Your task to perform on an android device: turn on the 12-hour format for clock Image 0: 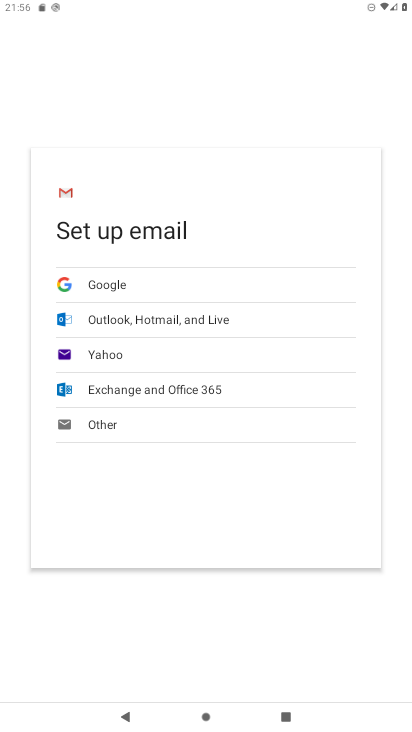
Step 0: press home button
Your task to perform on an android device: turn on the 12-hour format for clock Image 1: 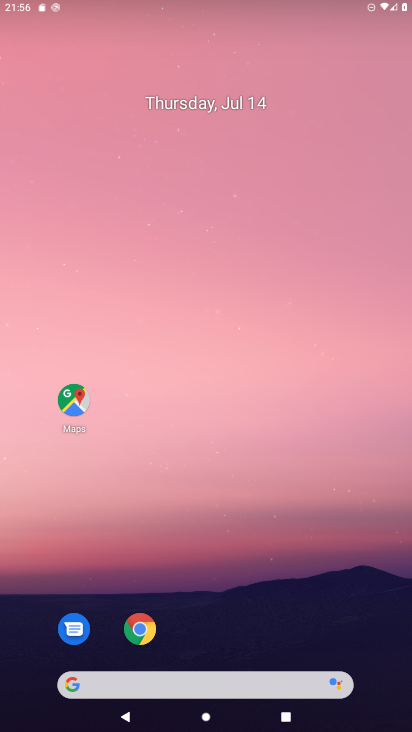
Step 1: drag from (251, 613) to (248, 252)
Your task to perform on an android device: turn on the 12-hour format for clock Image 2: 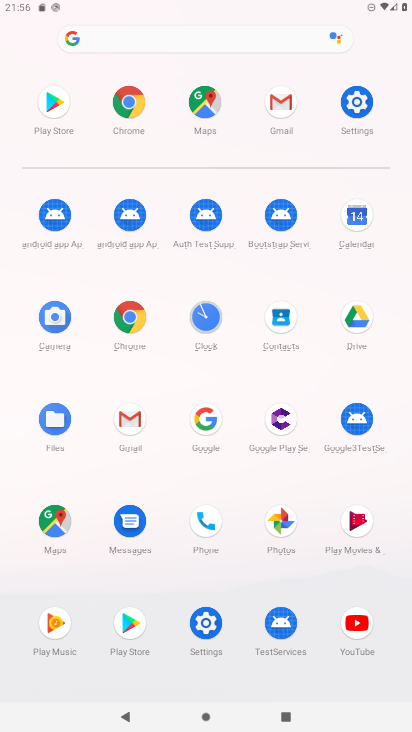
Step 2: click (195, 317)
Your task to perform on an android device: turn on the 12-hour format for clock Image 3: 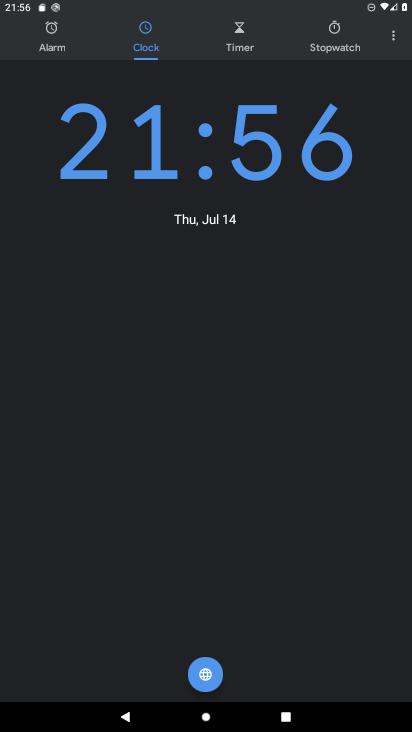
Step 3: click (394, 33)
Your task to perform on an android device: turn on the 12-hour format for clock Image 4: 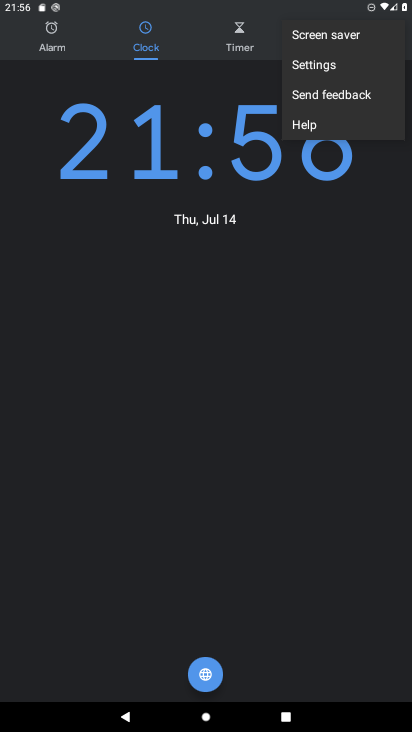
Step 4: click (336, 60)
Your task to perform on an android device: turn on the 12-hour format for clock Image 5: 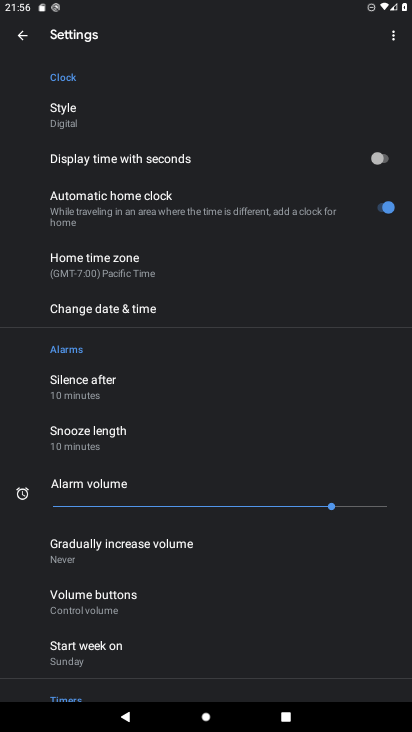
Step 5: click (135, 315)
Your task to perform on an android device: turn on the 12-hour format for clock Image 6: 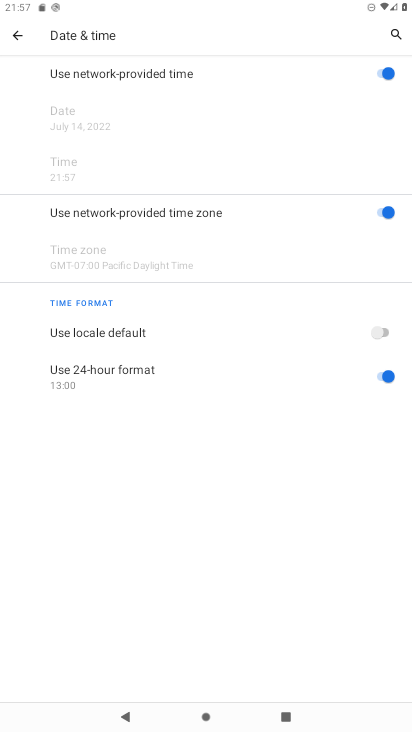
Step 6: task complete